Your task to perform on an android device: Open calendar and show me the second week of next month Image 0: 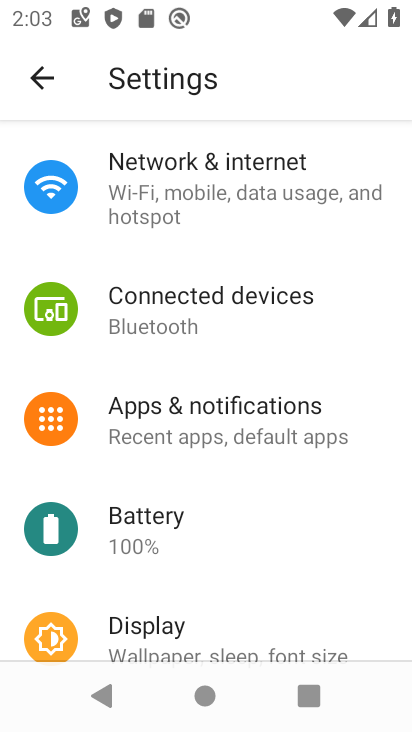
Step 0: press home button
Your task to perform on an android device: Open calendar and show me the second week of next month Image 1: 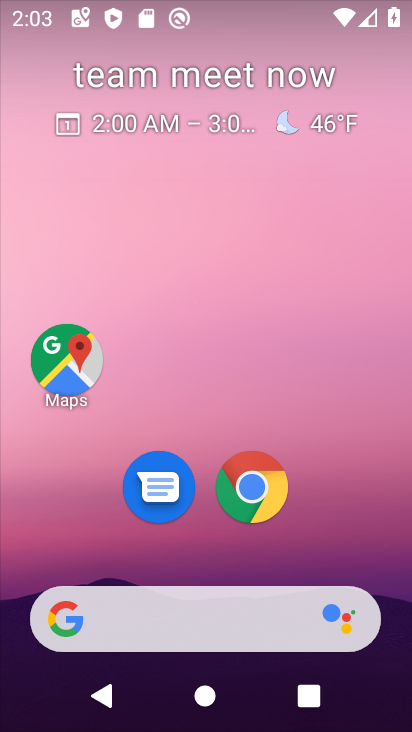
Step 1: drag from (365, 530) to (223, 5)
Your task to perform on an android device: Open calendar and show me the second week of next month Image 2: 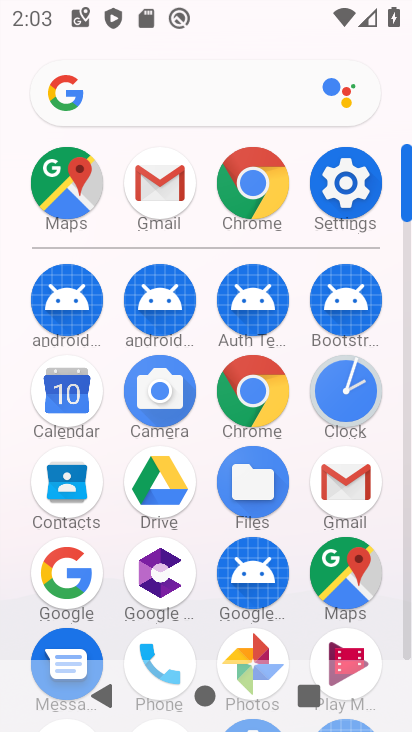
Step 2: click (74, 391)
Your task to perform on an android device: Open calendar and show me the second week of next month Image 3: 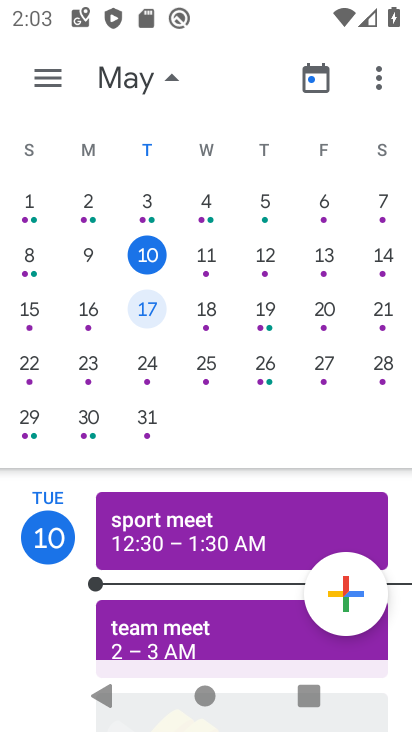
Step 3: drag from (368, 328) to (20, 317)
Your task to perform on an android device: Open calendar and show me the second week of next month Image 4: 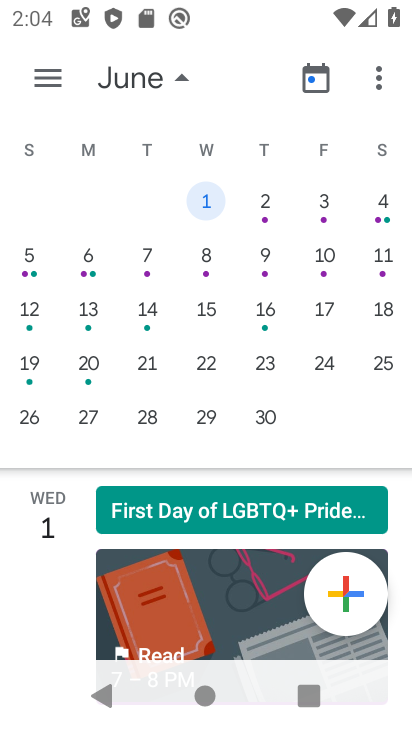
Step 4: click (33, 310)
Your task to perform on an android device: Open calendar and show me the second week of next month Image 5: 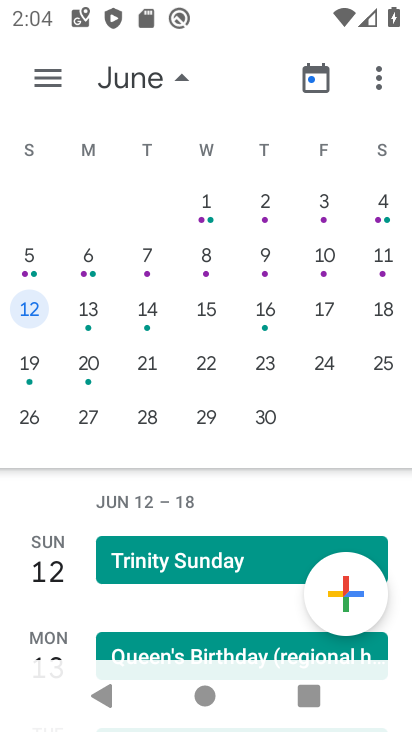
Step 5: task complete